Your task to perform on an android device: Open location settings Image 0: 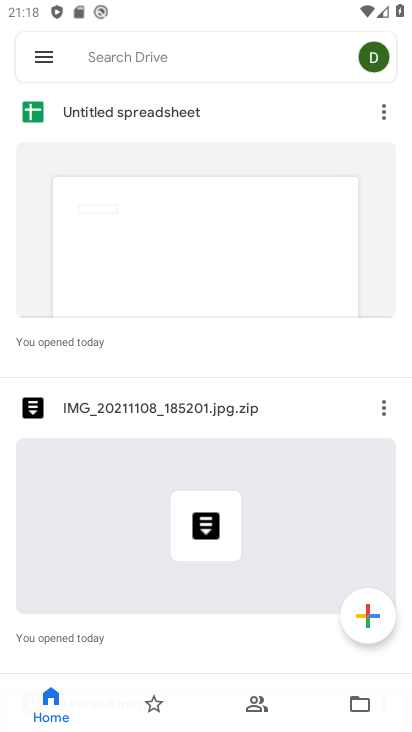
Step 0: press home button
Your task to perform on an android device: Open location settings Image 1: 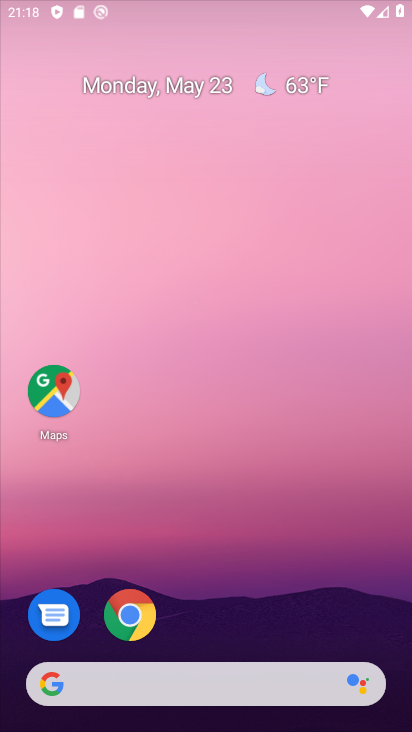
Step 1: drag from (211, 592) to (315, 85)
Your task to perform on an android device: Open location settings Image 2: 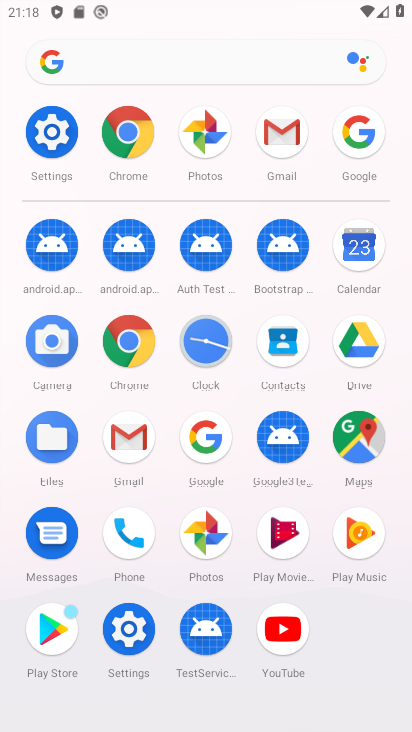
Step 2: click (48, 139)
Your task to perform on an android device: Open location settings Image 3: 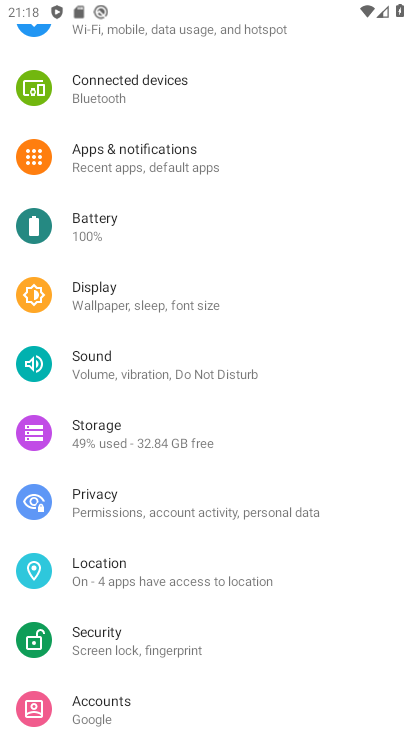
Step 3: click (108, 575)
Your task to perform on an android device: Open location settings Image 4: 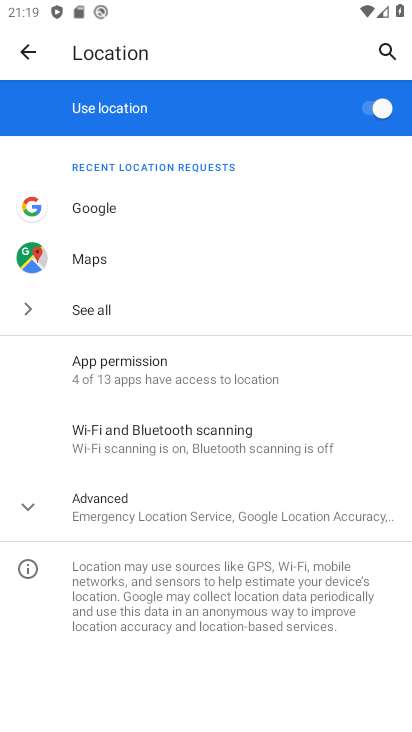
Step 4: task complete